Your task to perform on an android device: Empty the shopping cart on bestbuy.com. Search for macbook pro 15 inch on bestbuy.com, select the first entry, and add it to the cart. Image 0: 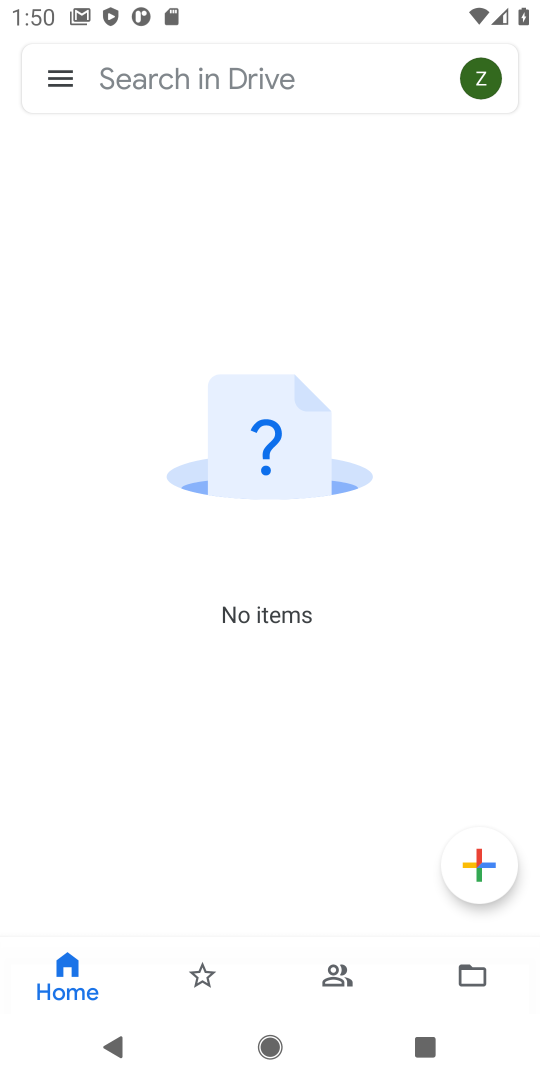
Step 0: press home button
Your task to perform on an android device: Empty the shopping cart on bestbuy.com. Search for macbook pro 15 inch on bestbuy.com, select the first entry, and add it to the cart. Image 1: 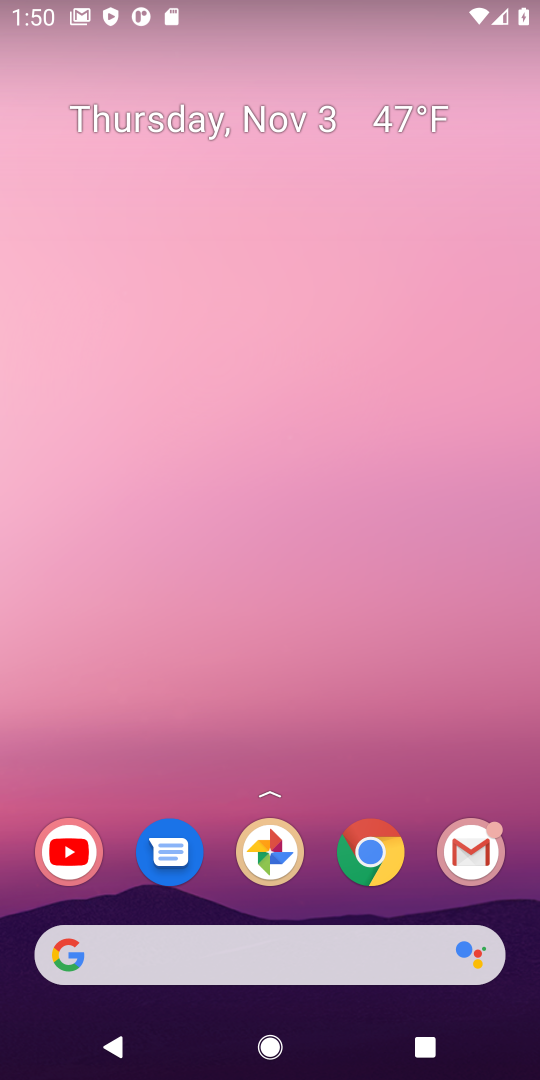
Step 1: click (364, 852)
Your task to perform on an android device: Empty the shopping cart on bestbuy.com. Search for macbook pro 15 inch on bestbuy.com, select the first entry, and add it to the cart. Image 2: 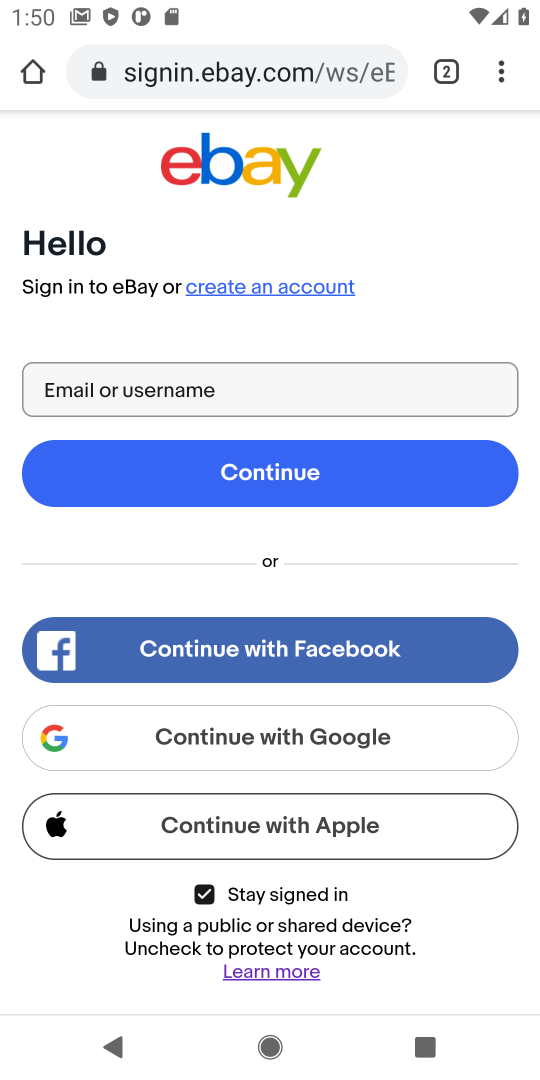
Step 2: click (248, 85)
Your task to perform on an android device: Empty the shopping cart on bestbuy.com. Search for macbook pro 15 inch on bestbuy.com, select the first entry, and add it to the cart. Image 3: 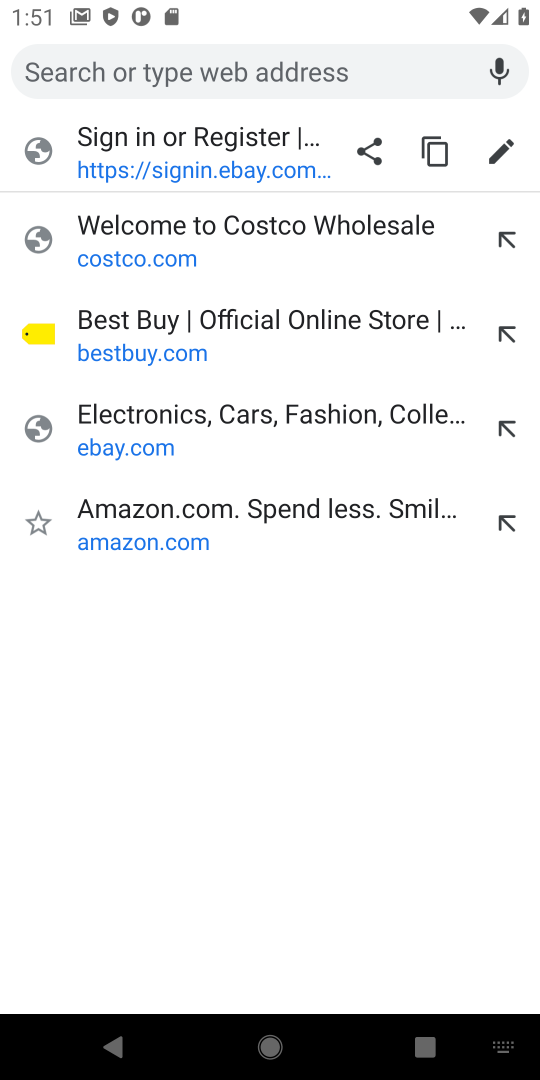
Step 3: type "bestbuy.com"
Your task to perform on an android device: Empty the shopping cart on bestbuy.com. Search for macbook pro 15 inch on bestbuy.com, select the first entry, and add it to the cart. Image 4: 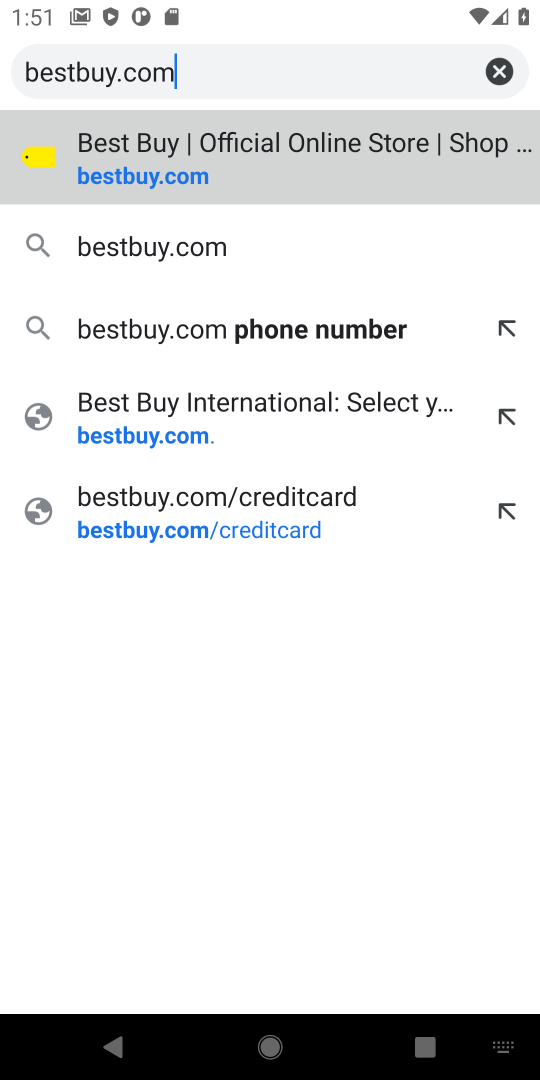
Step 4: click (180, 181)
Your task to perform on an android device: Empty the shopping cart on bestbuy.com. Search for macbook pro 15 inch on bestbuy.com, select the first entry, and add it to the cart. Image 5: 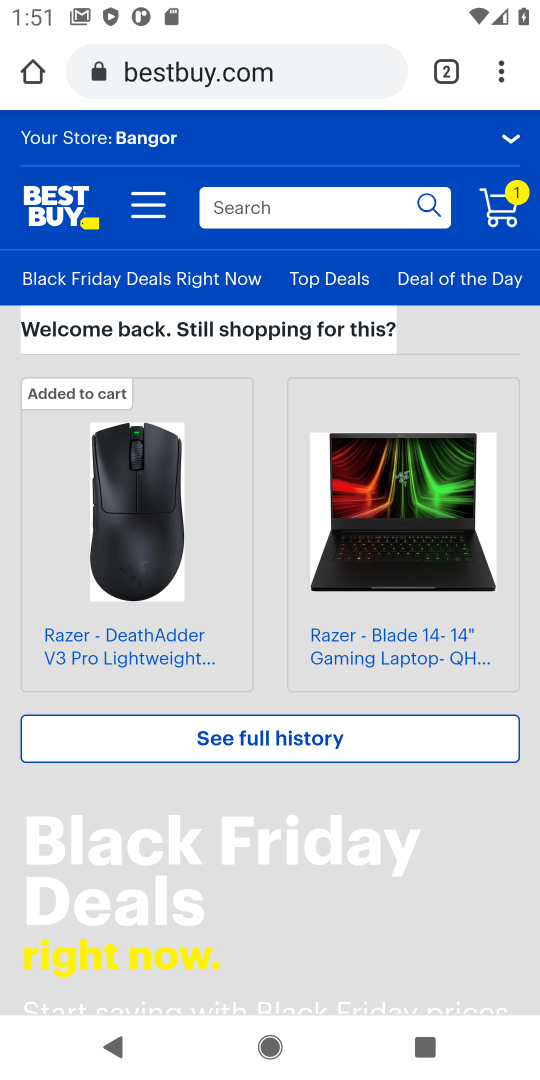
Step 5: click (497, 215)
Your task to perform on an android device: Empty the shopping cart on bestbuy.com. Search for macbook pro 15 inch on bestbuy.com, select the first entry, and add it to the cart. Image 6: 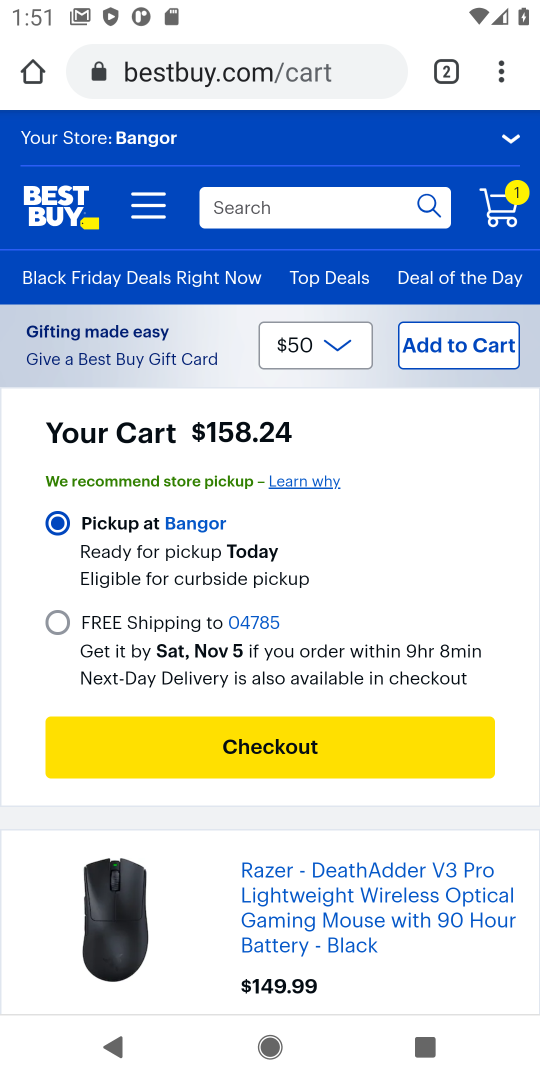
Step 6: drag from (199, 586) to (199, 324)
Your task to perform on an android device: Empty the shopping cart on bestbuy.com. Search for macbook pro 15 inch on bestbuy.com, select the first entry, and add it to the cart. Image 7: 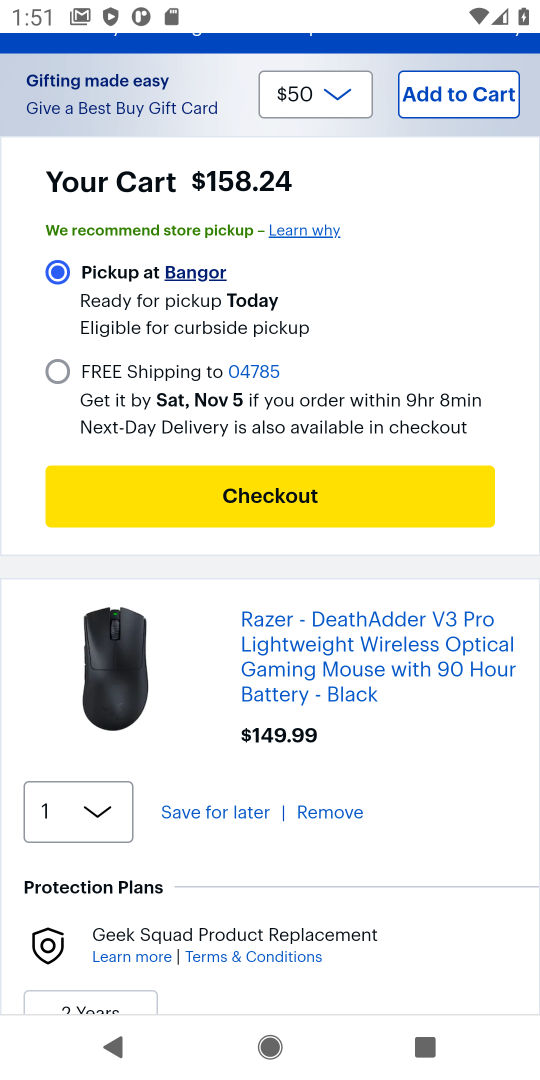
Step 7: click (325, 817)
Your task to perform on an android device: Empty the shopping cart on bestbuy.com. Search for macbook pro 15 inch on bestbuy.com, select the first entry, and add it to the cart. Image 8: 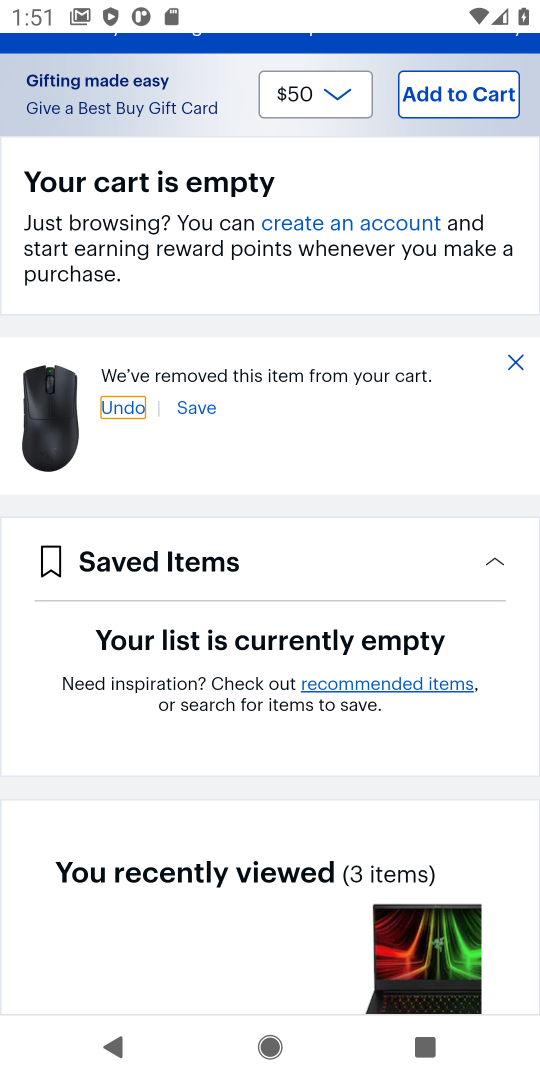
Step 8: drag from (289, 306) to (263, 916)
Your task to perform on an android device: Empty the shopping cart on bestbuy.com. Search for macbook pro 15 inch on bestbuy.com, select the first entry, and add it to the cart. Image 9: 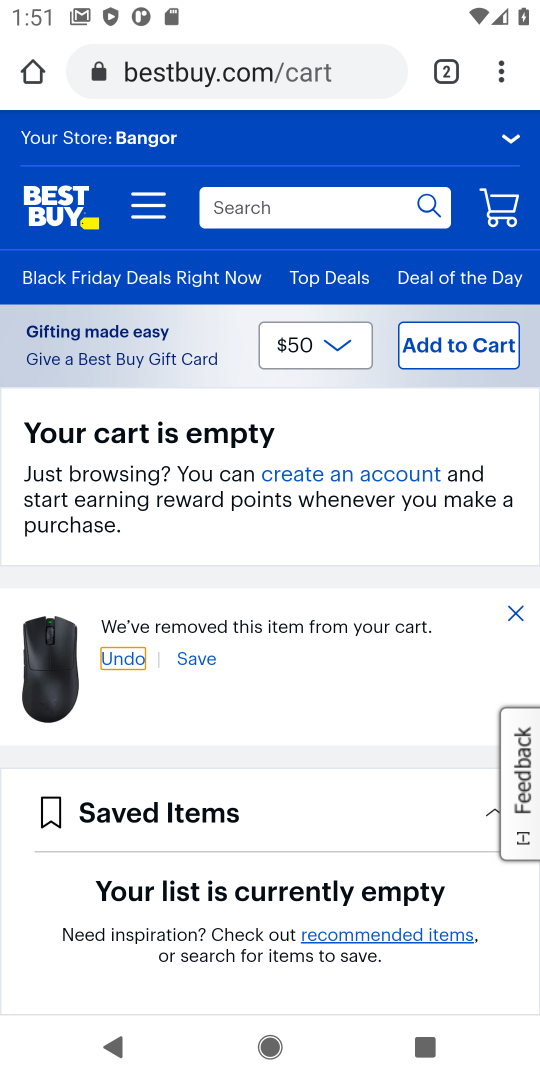
Step 9: click (425, 207)
Your task to perform on an android device: Empty the shopping cart on bestbuy.com. Search for macbook pro 15 inch on bestbuy.com, select the first entry, and add it to the cart. Image 10: 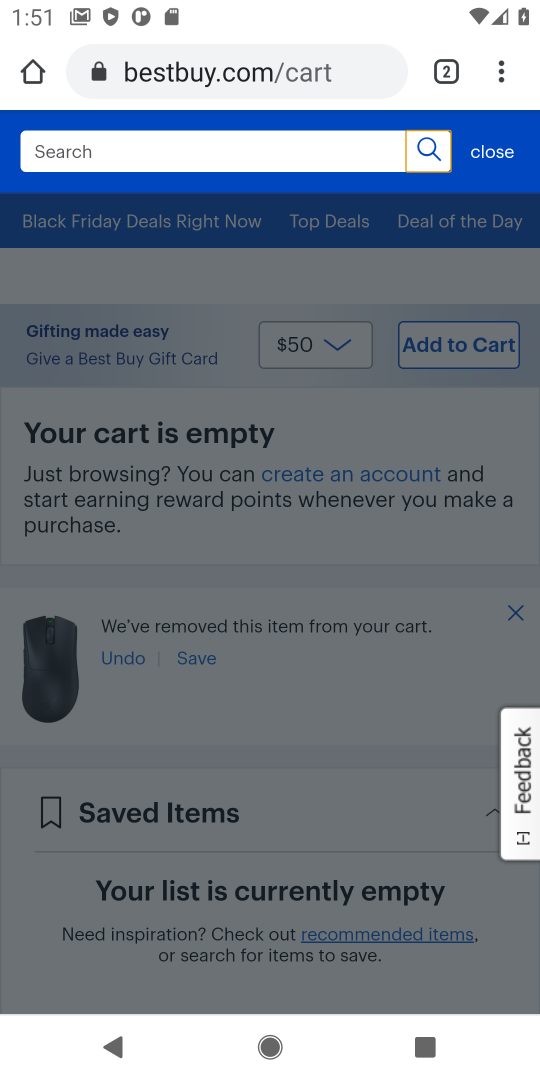
Step 10: type "macbook pro 15 inch"
Your task to perform on an android device: Empty the shopping cart on bestbuy.com. Search for macbook pro 15 inch on bestbuy.com, select the first entry, and add it to the cart. Image 11: 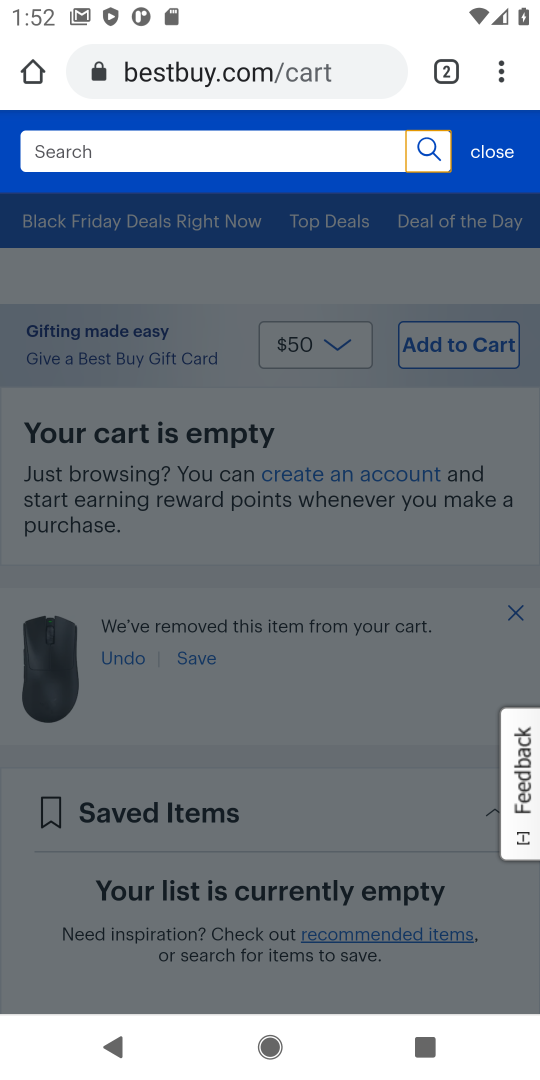
Step 11: click (143, 158)
Your task to perform on an android device: Empty the shopping cart on bestbuy.com. Search for macbook pro 15 inch on bestbuy.com, select the first entry, and add it to the cart. Image 12: 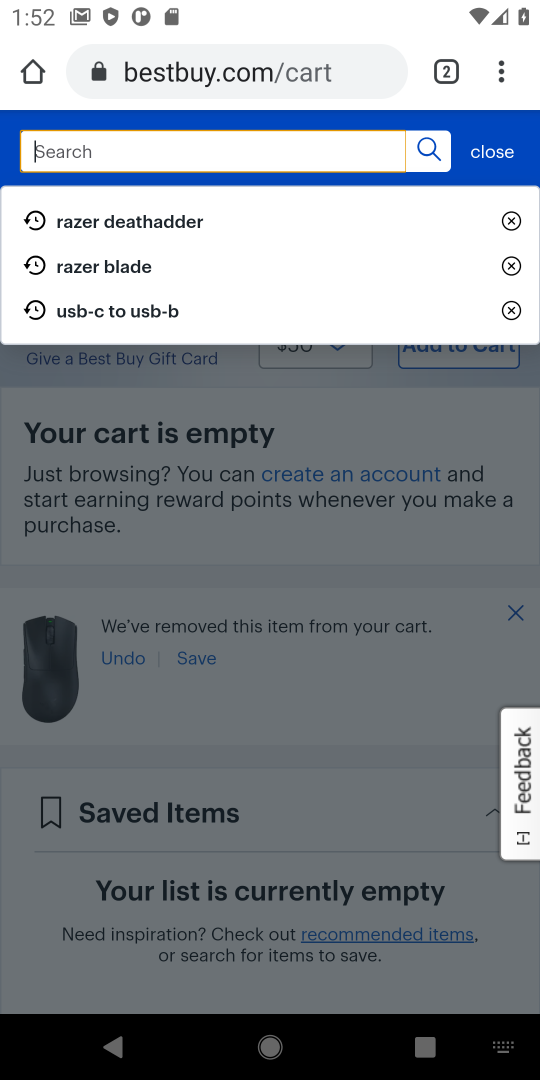
Step 12: type "macbook pro 15 inch"
Your task to perform on an android device: Empty the shopping cart on bestbuy.com. Search for macbook pro 15 inch on bestbuy.com, select the first entry, and add it to the cart. Image 13: 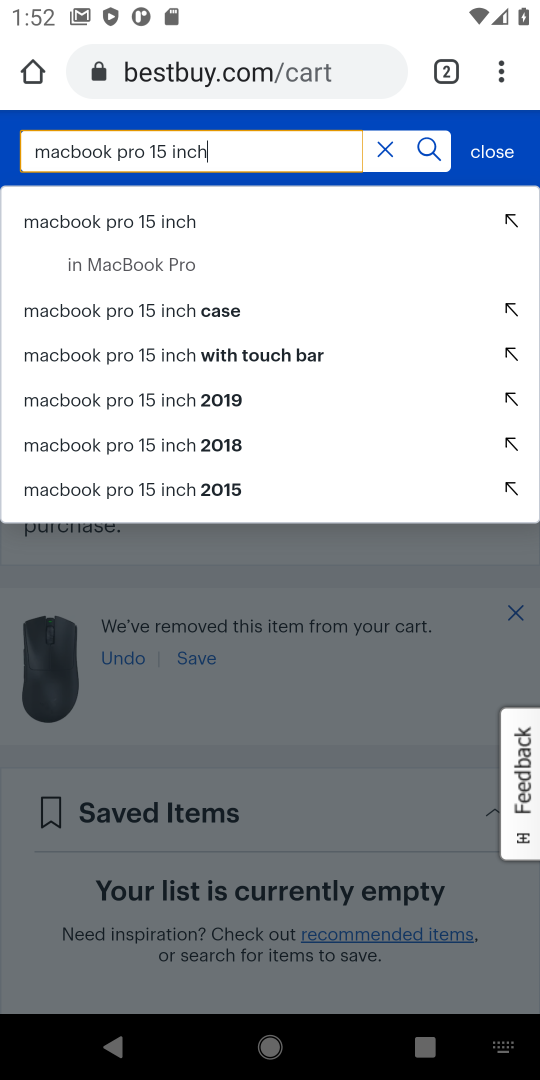
Step 13: click (105, 226)
Your task to perform on an android device: Empty the shopping cart on bestbuy.com. Search for macbook pro 15 inch on bestbuy.com, select the first entry, and add it to the cart. Image 14: 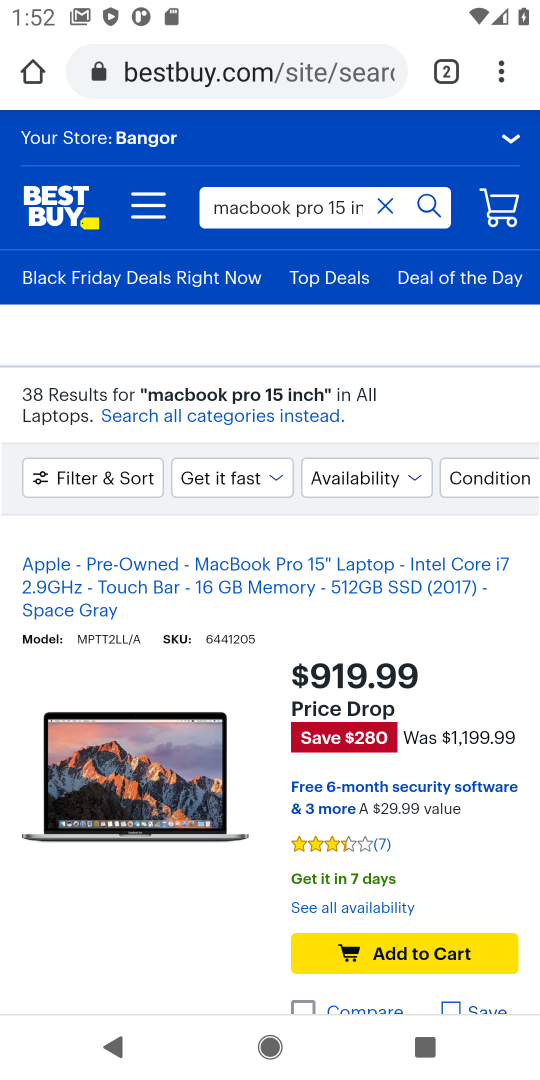
Step 14: click (132, 759)
Your task to perform on an android device: Empty the shopping cart on bestbuy.com. Search for macbook pro 15 inch on bestbuy.com, select the first entry, and add it to the cart. Image 15: 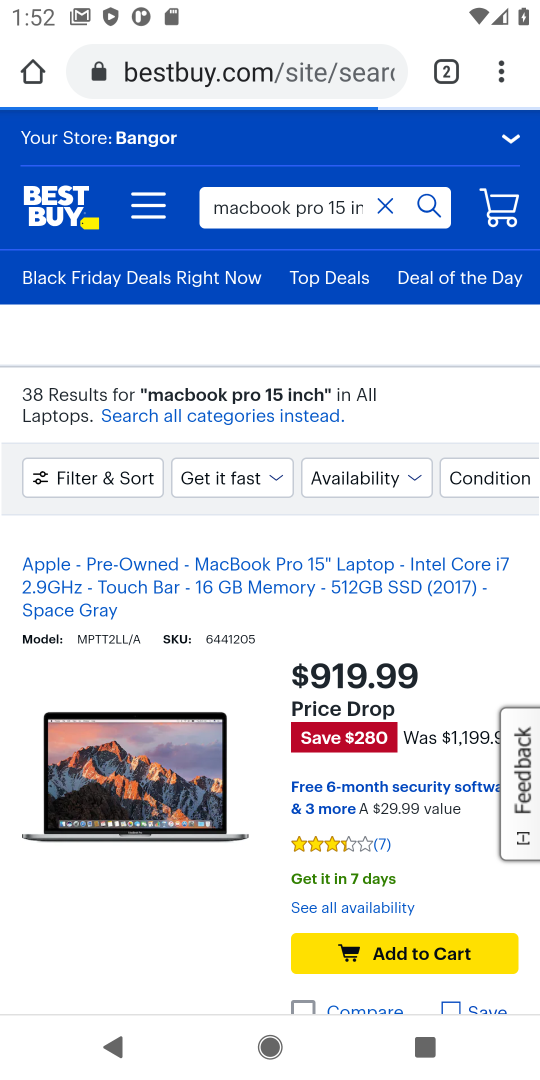
Step 15: click (407, 949)
Your task to perform on an android device: Empty the shopping cart on bestbuy.com. Search for macbook pro 15 inch on bestbuy.com, select the first entry, and add it to the cart. Image 16: 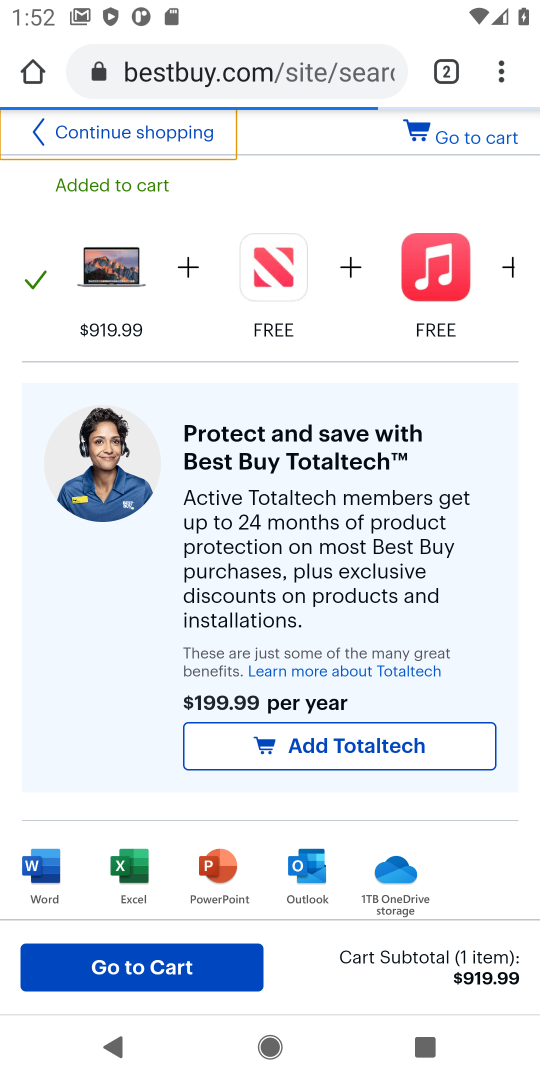
Step 16: task complete